Your task to perform on an android device: find which apps use the phone's location Image 0: 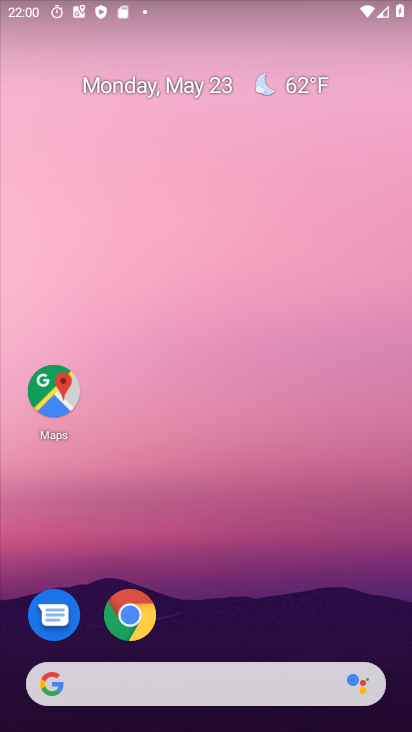
Step 0: drag from (229, 600) to (246, 126)
Your task to perform on an android device: find which apps use the phone's location Image 1: 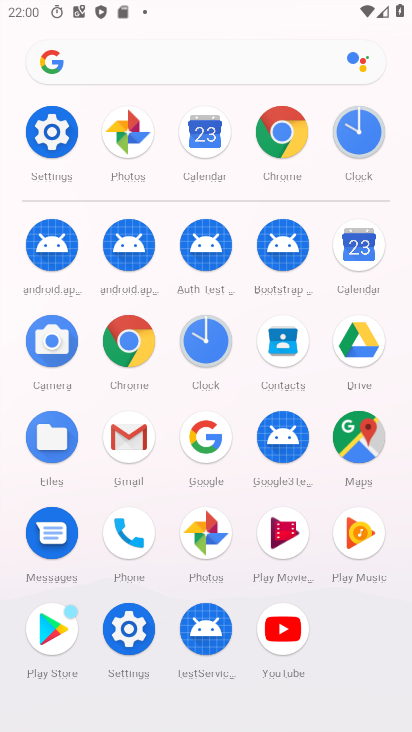
Step 1: click (45, 127)
Your task to perform on an android device: find which apps use the phone's location Image 2: 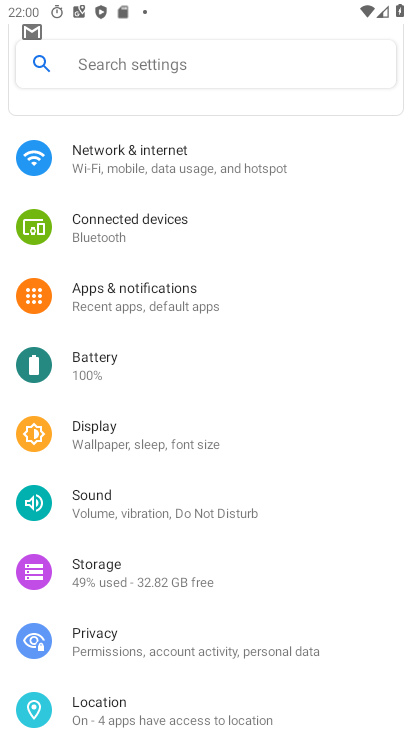
Step 2: click (109, 707)
Your task to perform on an android device: find which apps use the phone's location Image 3: 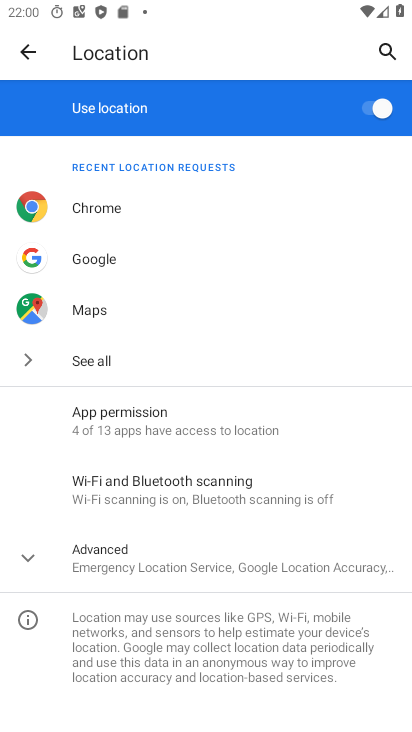
Step 3: click (132, 401)
Your task to perform on an android device: find which apps use the phone's location Image 4: 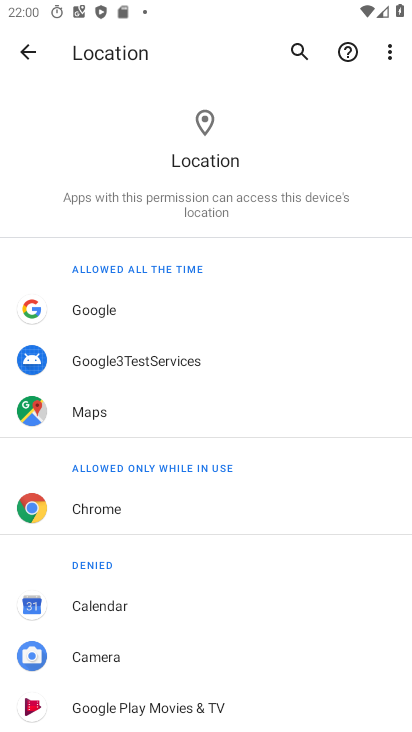
Step 4: task complete